Your task to perform on an android device: choose inbox layout in the gmail app Image 0: 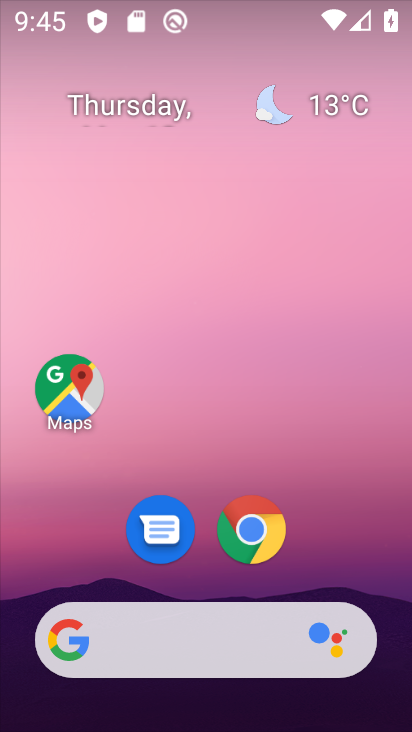
Step 0: drag from (208, 567) to (262, 127)
Your task to perform on an android device: choose inbox layout in the gmail app Image 1: 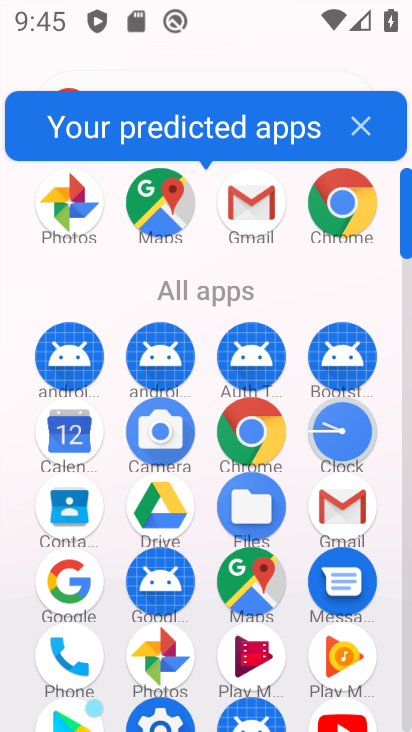
Step 1: click (242, 211)
Your task to perform on an android device: choose inbox layout in the gmail app Image 2: 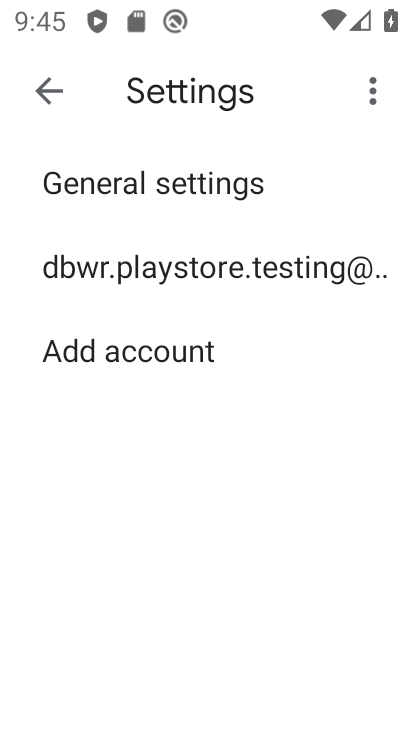
Step 2: click (207, 261)
Your task to perform on an android device: choose inbox layout in the gmail app Image 3: 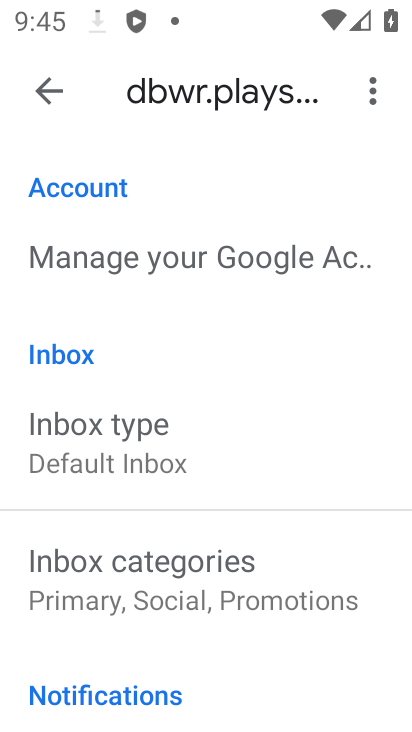
Step 3: click (146, 445)
Your task to perform on an android device: choose inbox layout in the gmail app Image 4: 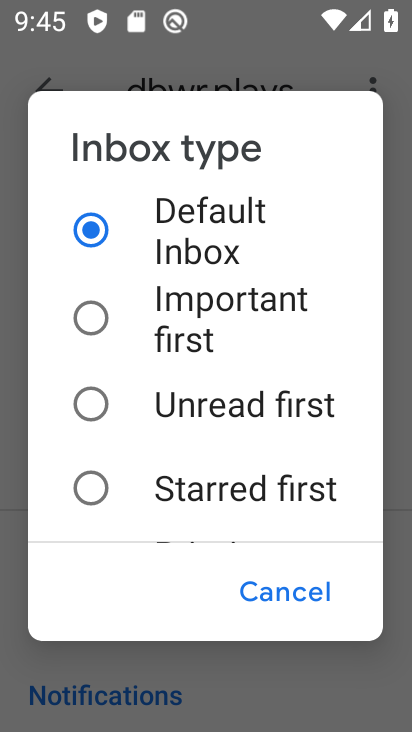
Step 4: click (78, 496)
Your task to perform on an android device: choose inbox layout in the gmail app Image 5: 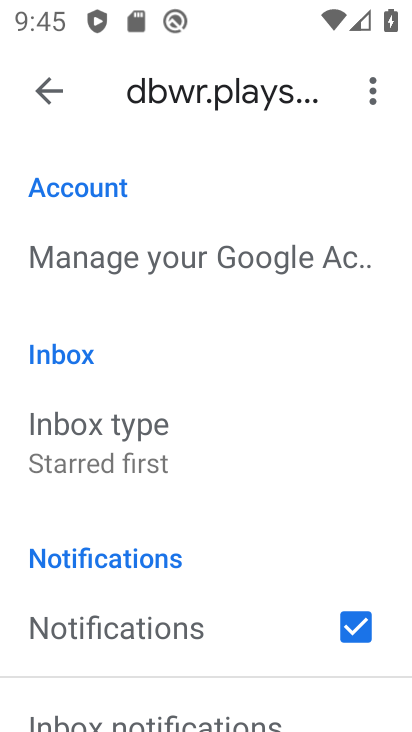
Step 5: task complete